Your task to perform on an android device: Go to internet settings Image 0: 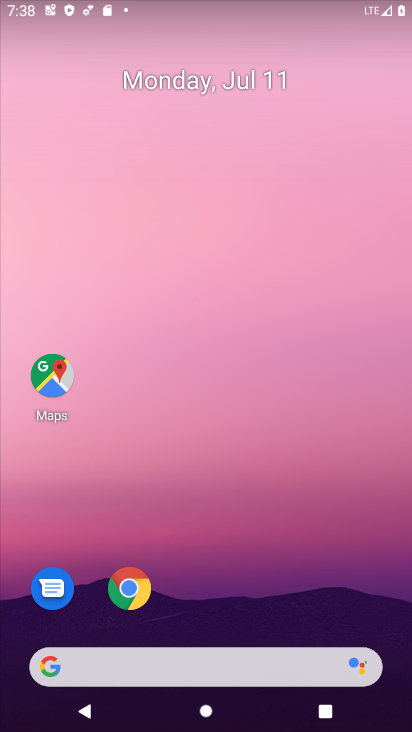
Step 0: drag from (383, 639) to (164, 14)
Your task to perform on an android device: Go to internet settings Image 1: 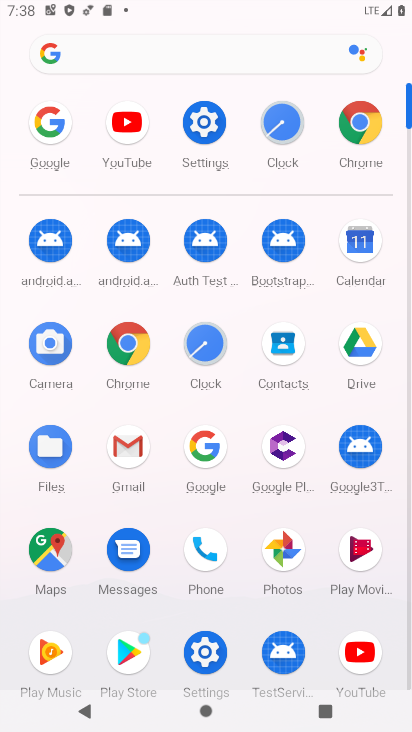
Step 1: click (199, 639)
Your task to perform on an android device: Go to internet settings Image 2: 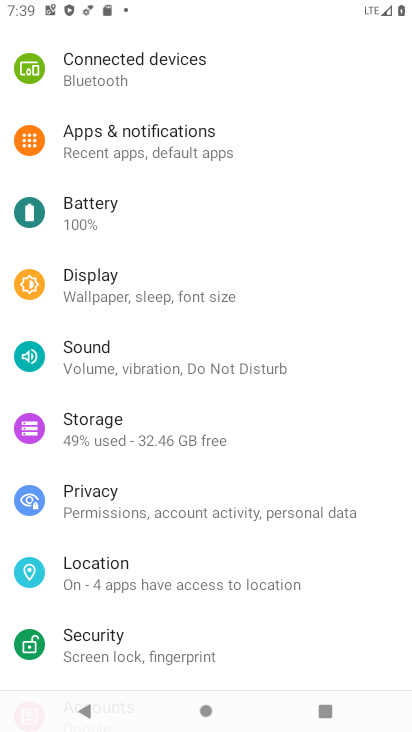
Step 2: drag from (148, 103) to (138, 571)
Your task to perform on an android device: Go to internet settings Image 3: 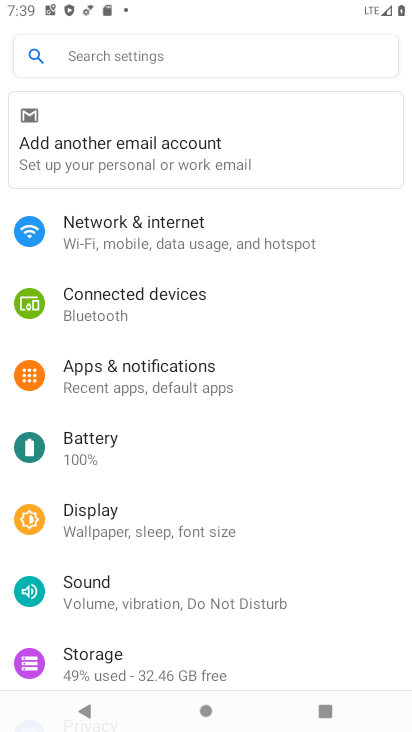
Step 3: click (199, 221)
Your task to perform on an android device: Go to internet settings Image 4: 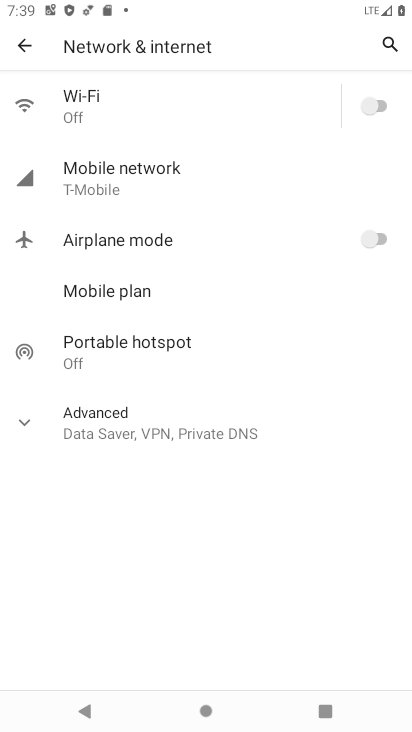
Step 4: task complete